Your task to perform on an android device: star an email in the gmail app Image 0: 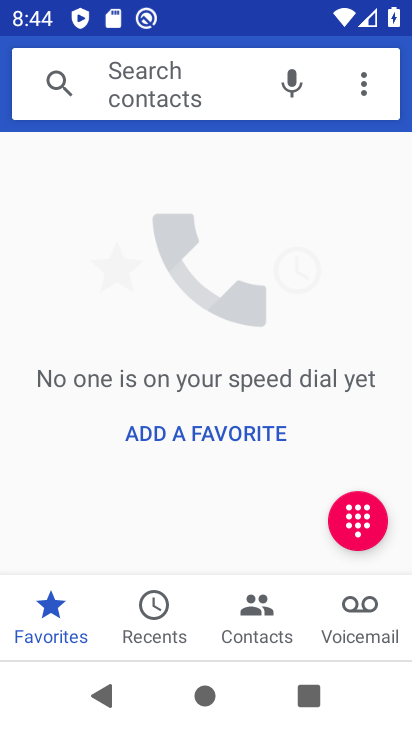
Step 0: press home button
Your task to perform on an android device: star an email in the gmail app Image 1: 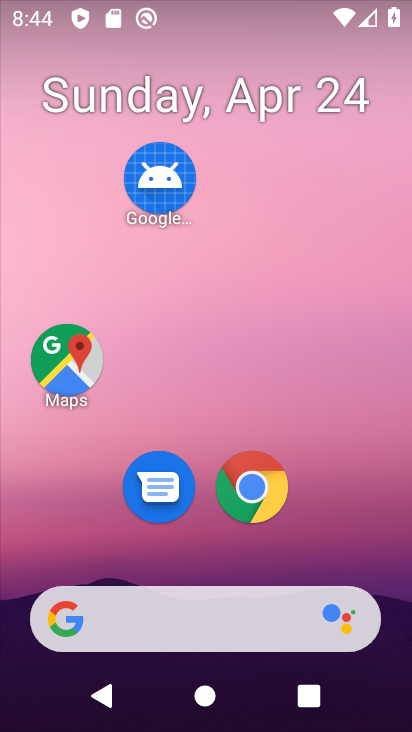
Step 1: drag from (322, 404) to (287, 81)
Your task to perform on an android device: star an email in the gmail app Image 2: 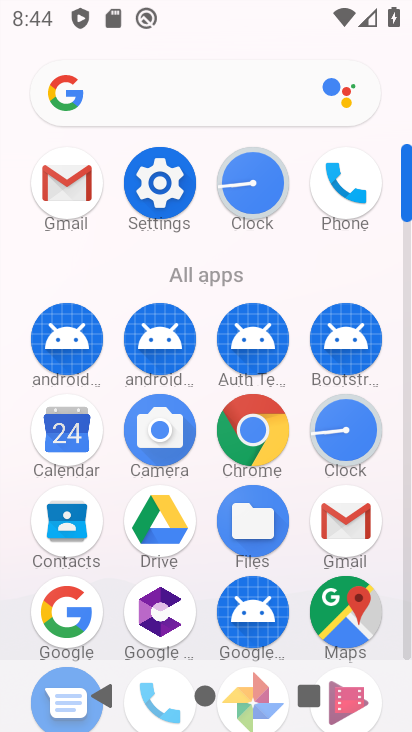
Step 2: click (350, 510)
Your task to perform on an android device: star an email in the gmail app Image 3: 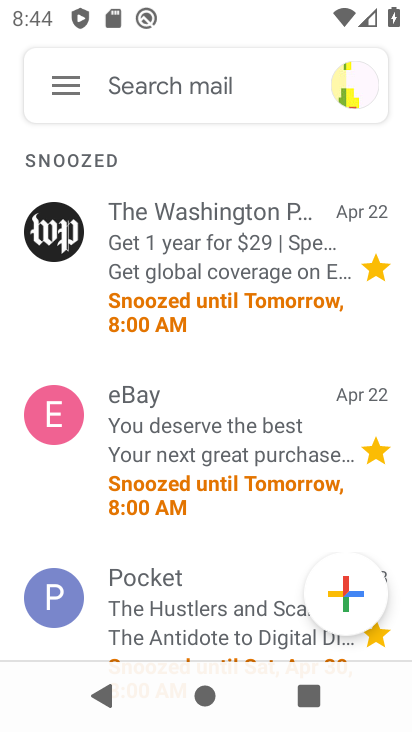
Step 3: task complete